Your task to perform on an android device: Open Amazon Image 0: 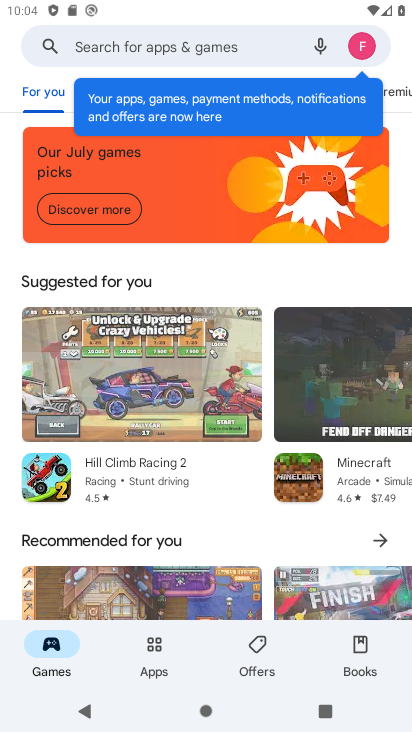
Step 0: press home button
Your task to perform on an android device: Open Amazon Image 1: 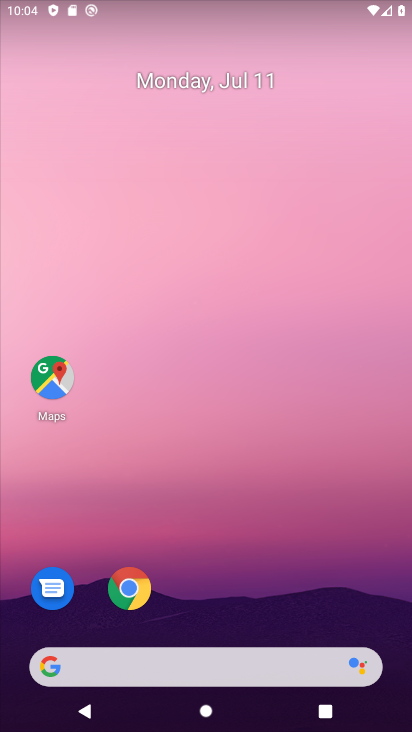
Step 1: drag from (216, 536) to (170, 3)
Your task to perform on an android device: Open Amazon Image 2: 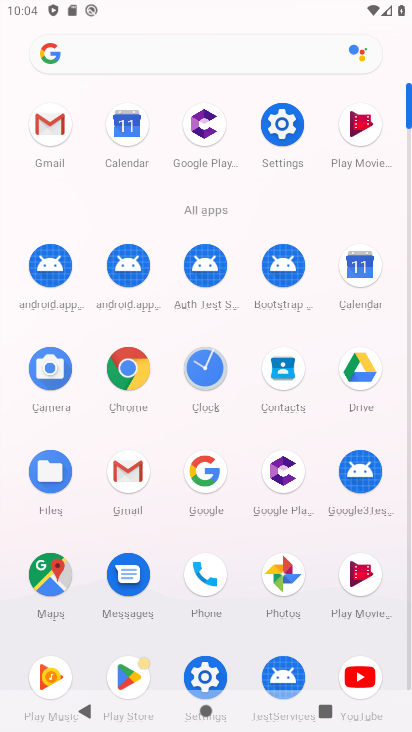
Step 2: drag from (164, 548) to (375, 106)
Your task to perform on an android device: Open Amazon Image 3: 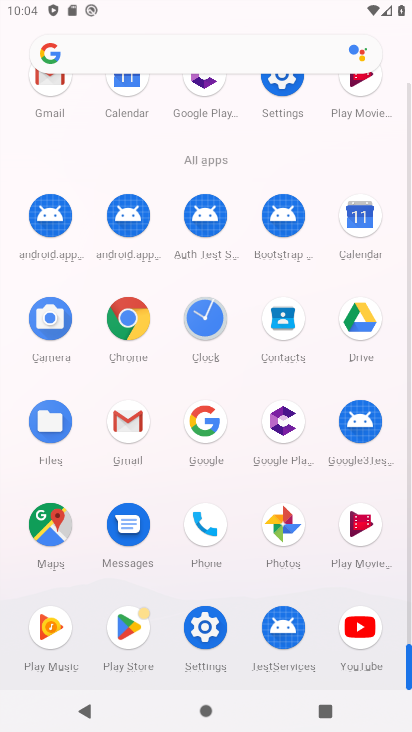
Step 3: click (125, 304)
Your task to perform on an android device: Open Amazon Image 4: 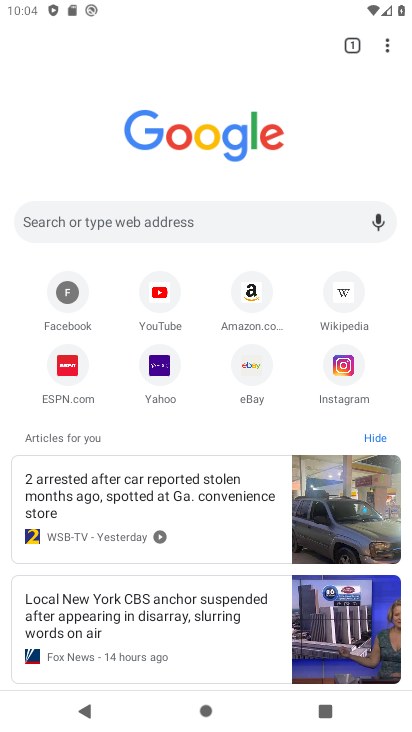
Step 4: click (258, 287)
Your task to perform on an android device: Open Amazon Image 5: 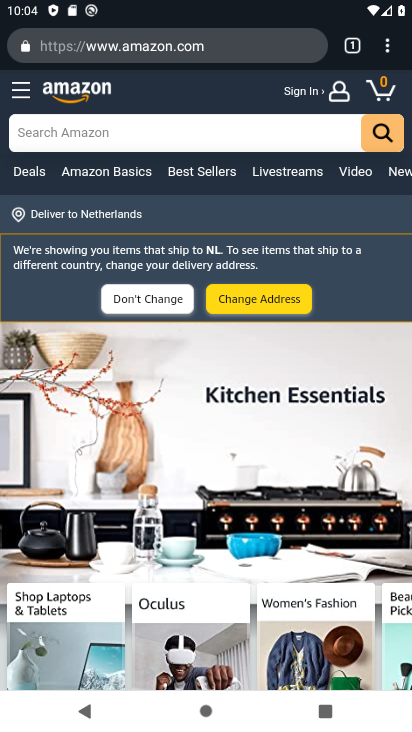
Step 5: task complete